Your task to perform on an android device: turn on wifi Image 0: 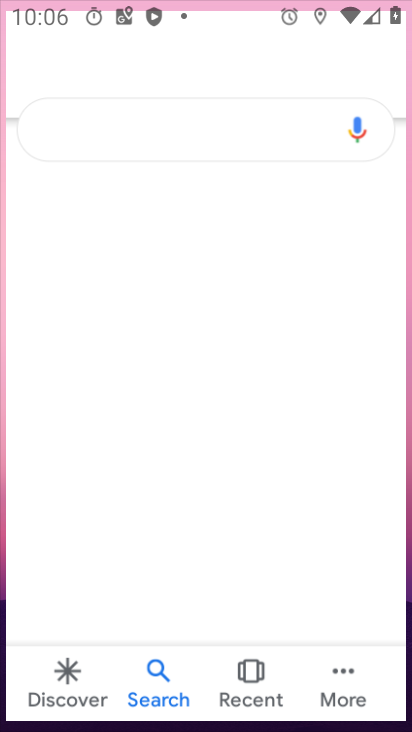
Step 0: drag from (384, 626) to (75, 7)
Your task to perform on an android device: turn on wifi Image 1: 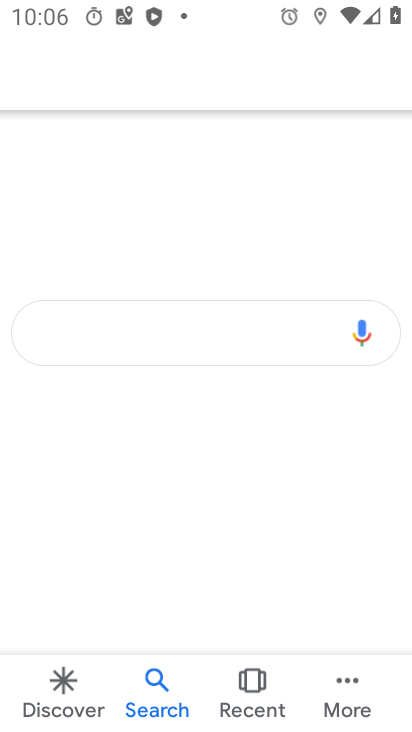
Step 1: press back button
Your task to perform on an android device: turn on wifi Image 2: 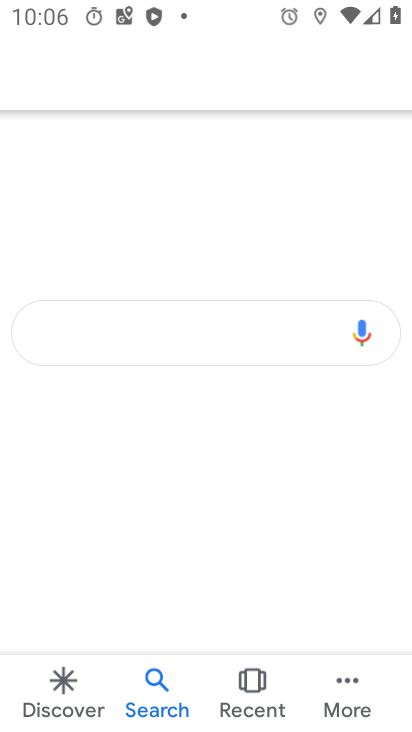
Step 2: press back button
Your task to perform on an android device: turn on wifi Image 3: 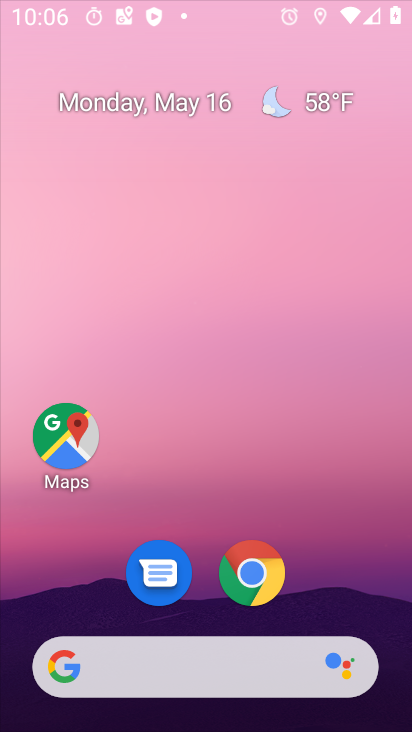
Step 3: press back button
Your task to perform on an android device: turn on wifi Image 4: 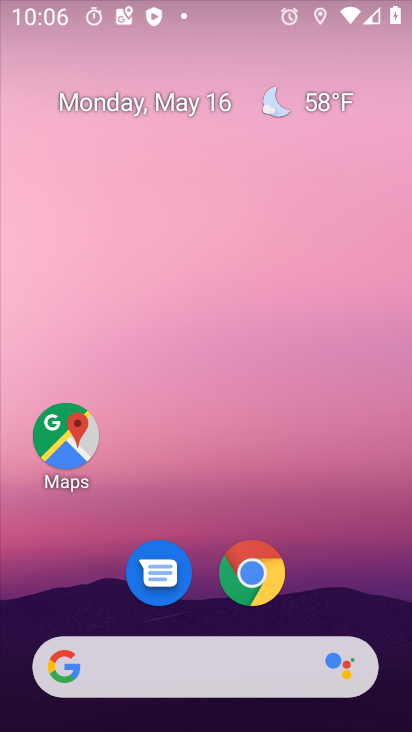
Step 4: press home button
Your task to perform on an android device: turn on wifi Image 5: 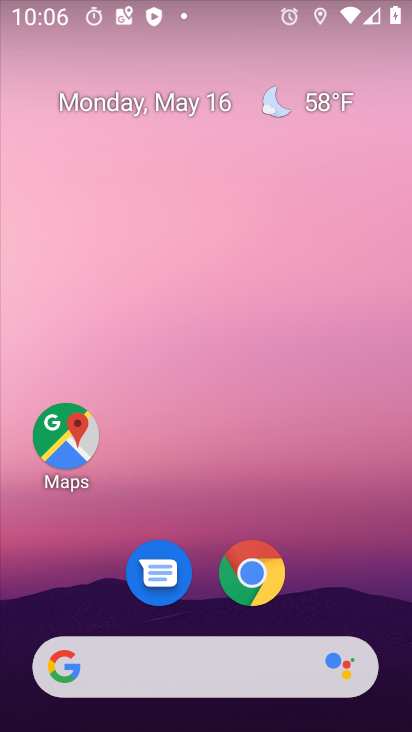
Step 5: press home button
Your task to perform on an android device: turn on wifi Image 6: 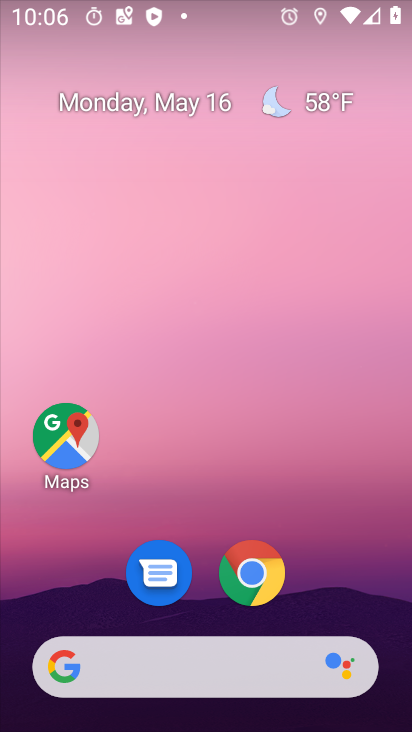
Step 6: press home button
Your task to perform on an android device: turn on wifi Image 7: 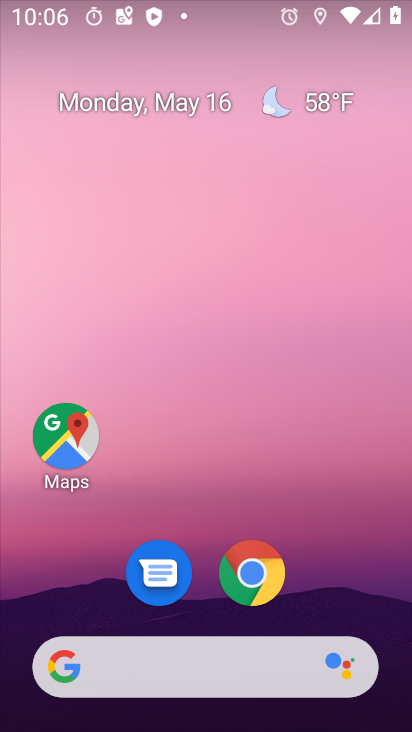
Step 7: press back button
Your task to perform on an android device: turn on wifi Image 8: 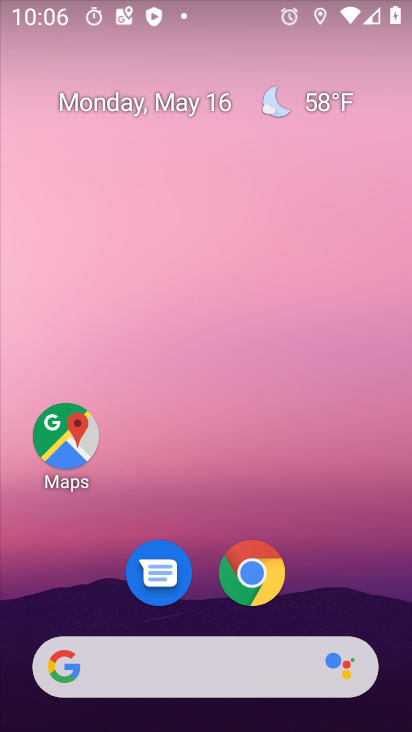
Step 8: press back button
Your task to perform on an android device: turn on wifi Image 9: 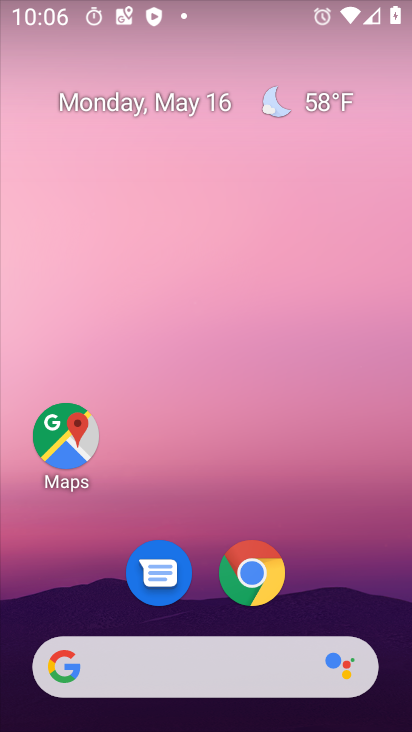
Step 9: drag from (371, 625) to (117, 31)
Your task to perform on an android device: turn on wifi Image 10: 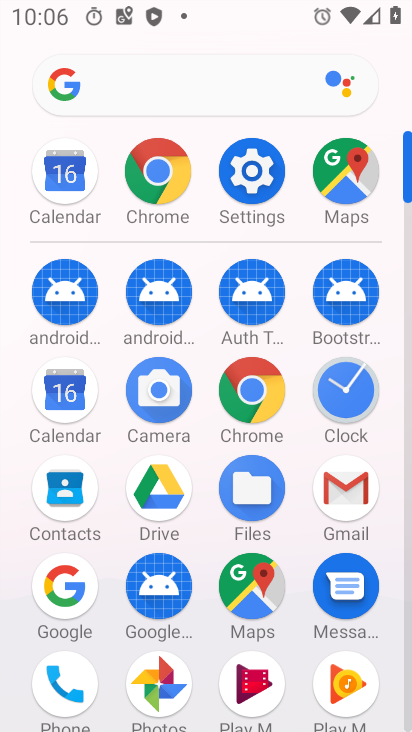
Step 10: drag from (133, 27) to (14, 56)
Your task to perform on an android device: turn on wifi Image 11: 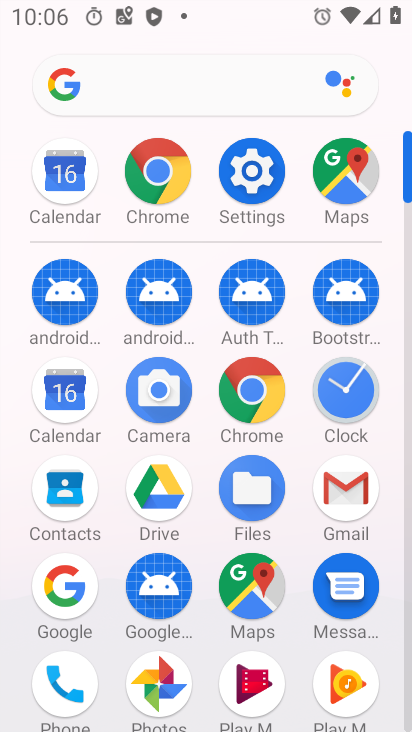
Step 11: click (230, 161)
Your task to perform on an android device: turn on wifi Image 12: 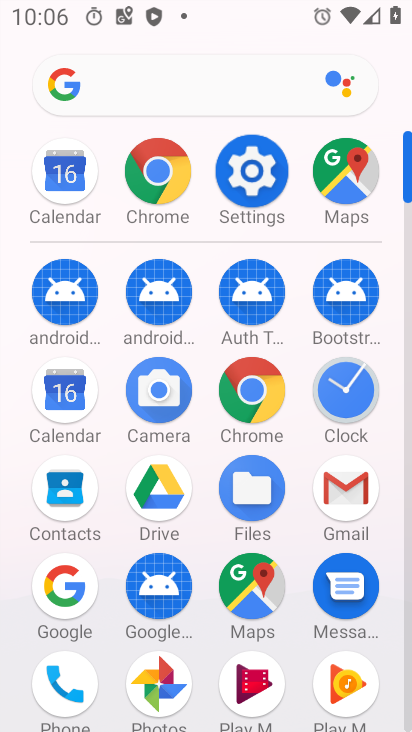
Step 12: drag from (235, 164) to (267, 194)
Your task to perform on an android device: turn on wifi Image 13: 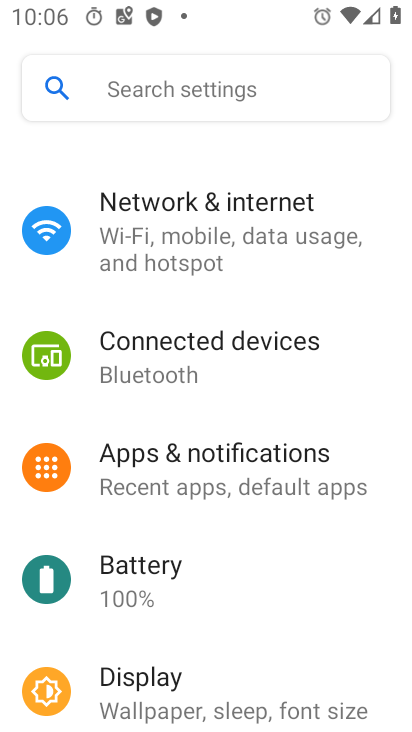
Step 13: click (269, 194)
Your task to perform on an android device: turn on wifi Image 14: 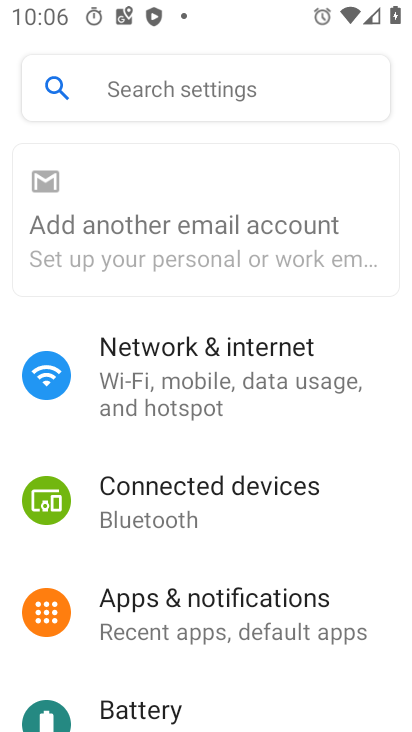
Step 14: click (275, 194)
Your task to perform on an android device: turn on wifi Image 15: 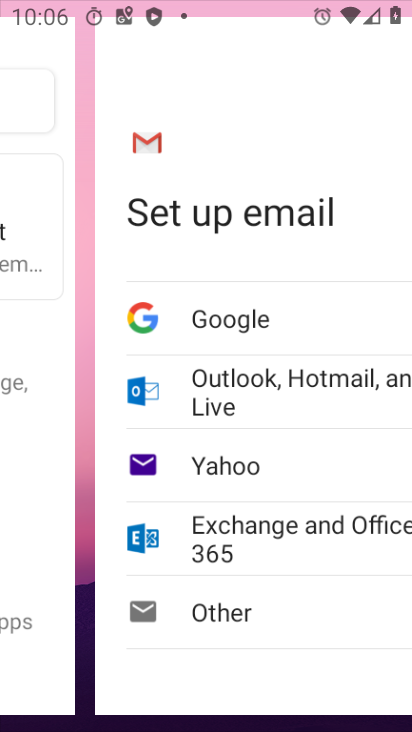
Step 15: click (293, 174)
Your task to perform on an android device: turn on wifi Image 16: 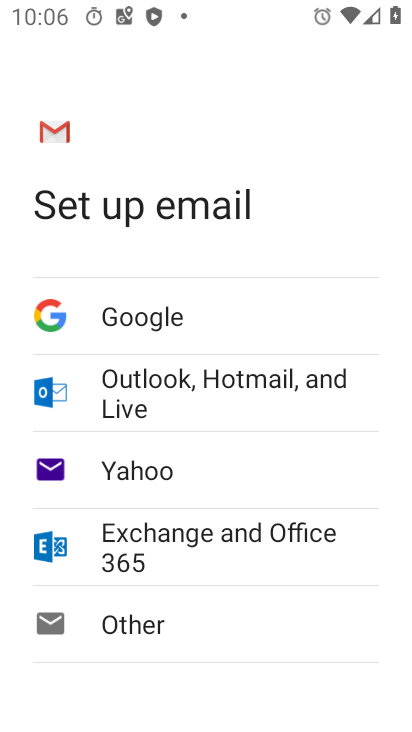
Step 16: press back button
Your task to perform on an android device: turn on wifi Image 17: 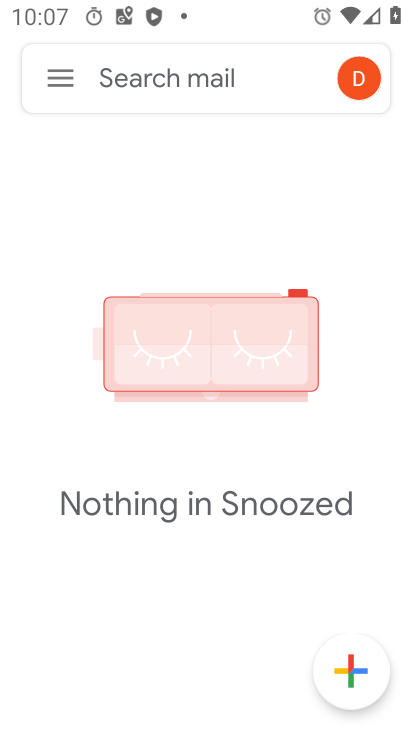
Step 17: press back button
Your task to perform on an android device: turn on wifi Image 18: 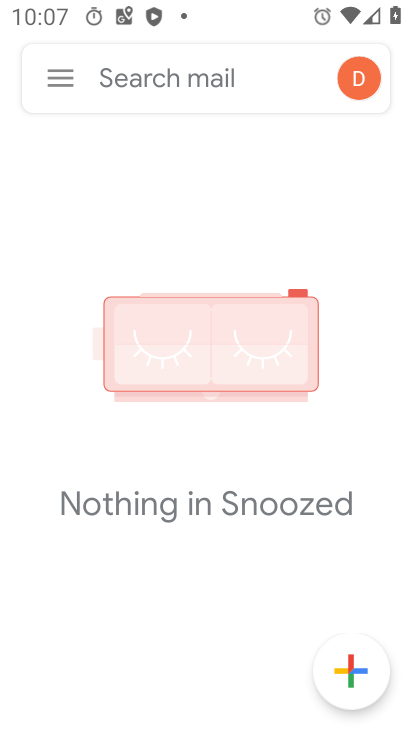
Step 18: press back button
Your task to perform on an android device: turn on wifi Image 19: 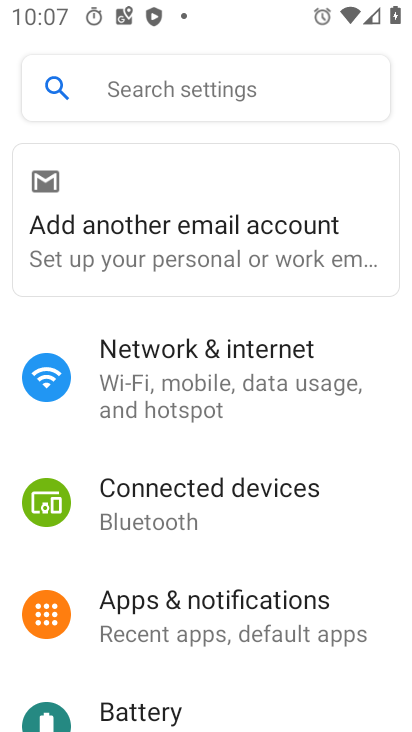
Step 19: click (190, 342)
Your task to perform on an android device: turn on wifi Image 20: 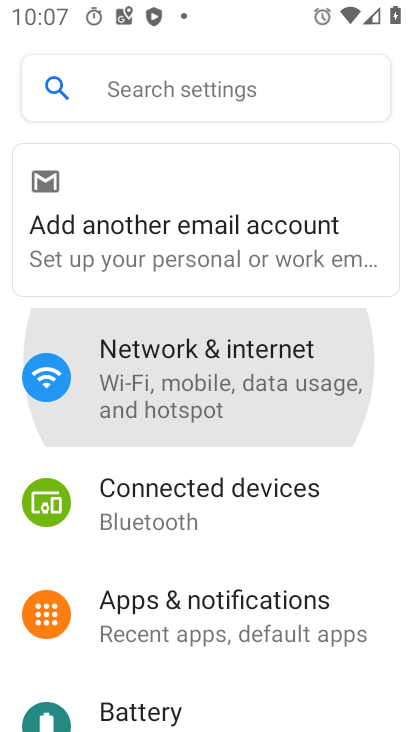
Step 20: click (189, 345)
Your task to perform on an android device: turn on wifi Image 21: 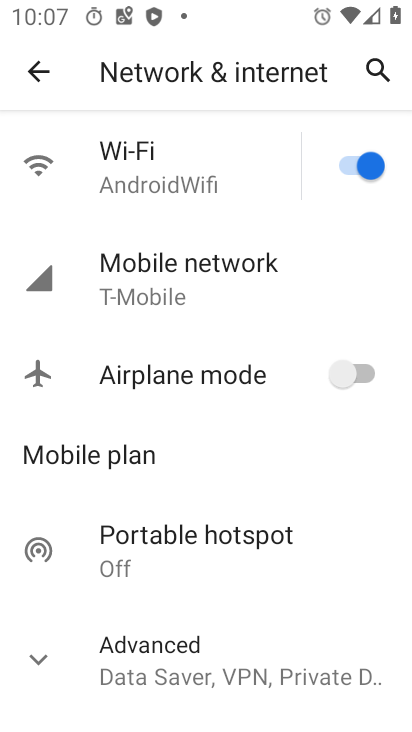
Step 21: task complete